Your task to perform on an android device: delete a single message in the gmail app Image 0: 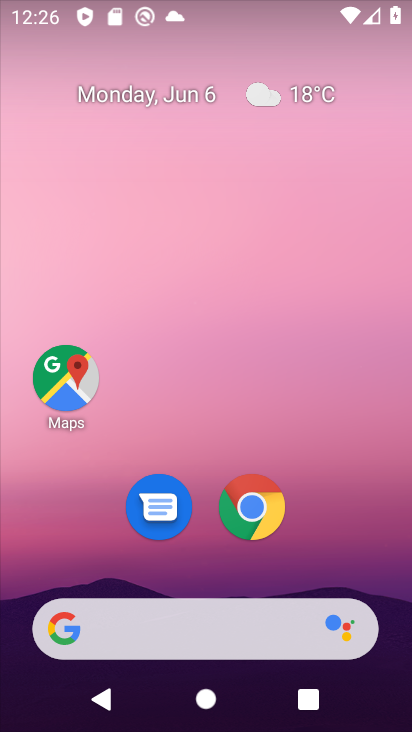
Step 0: drag from (247, 317) to (259, 166)
Your task to perform on an android device: delete a single message in the gmail app Image 1: 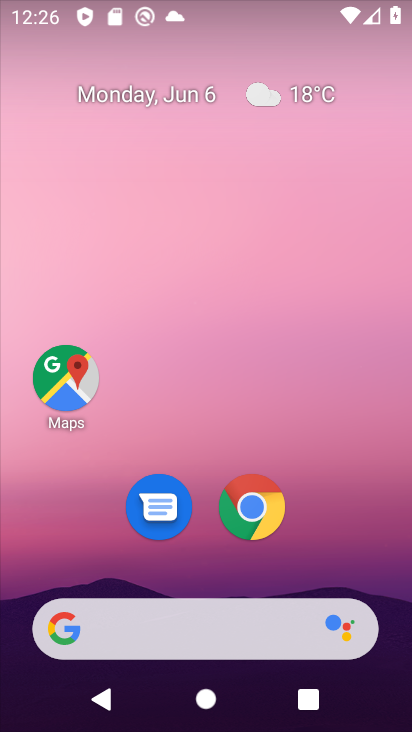
Step 1: drag from (227, 584) to (282, 191)
Your task to perform on an android device: delete a single message in the gmail app Image 2: 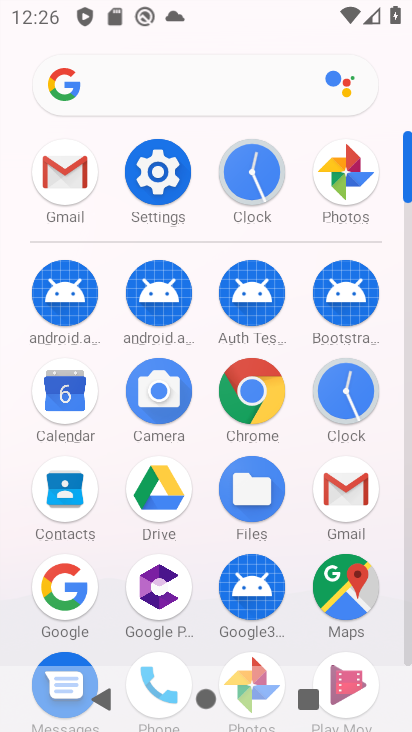
Step 2: drag from (222, 440) to (250, 128)
Your task to perform on an android device: delete a single message in the gmail app Image 3: 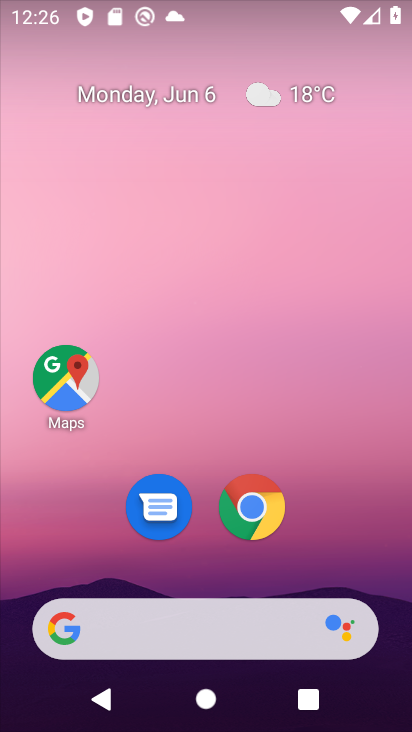
Step 3: click (343, 489)
Your task to perform on an android device: delete a single message in the gmail app Image 4: 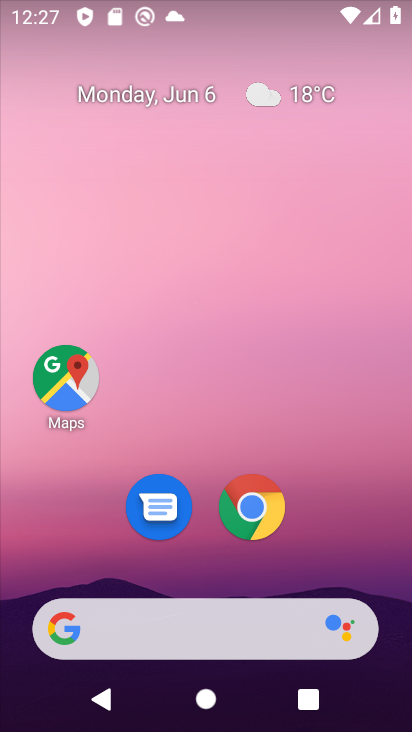
Step 4: drag from (146, 602) to (206, 75)
Your task to perform on an android device: delete a single message in the gmail app Image 5: 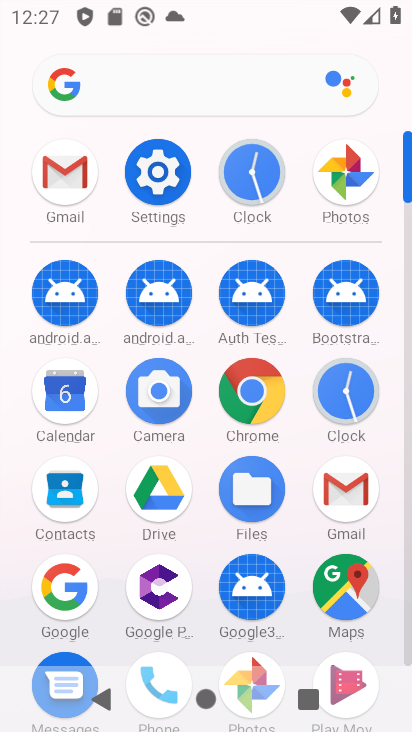
Step 5: click (338, 491)
Your task to perform on an android device: delete a single message in the gmail app Image 6: 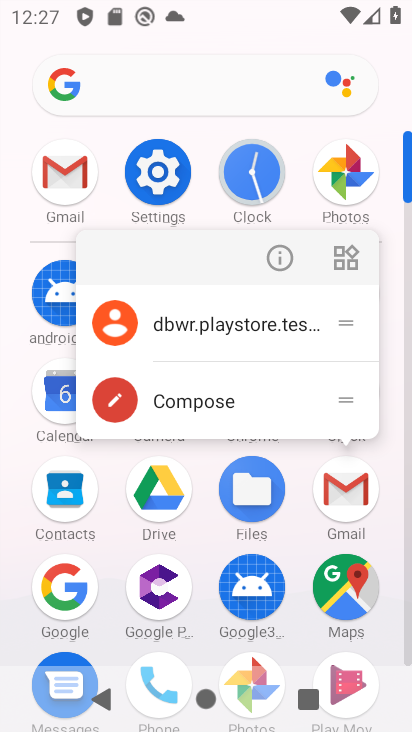
Step 6: click (339, 492)
Your task to perform on an android device: delete a single message in the gmail app Image 7: 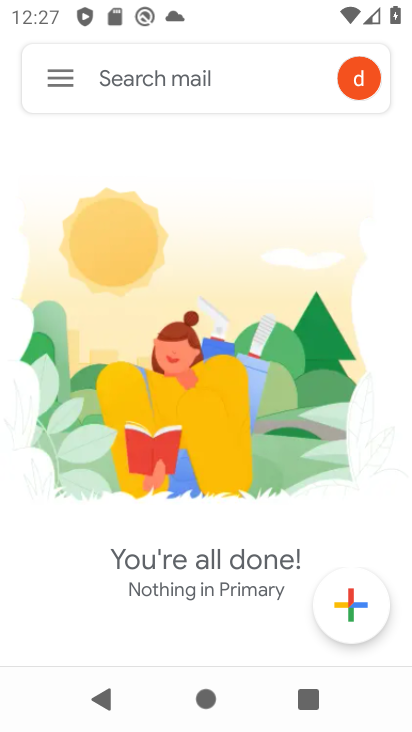
Step 7: task complete